Your task to perform on an android device: toggle sleep mode Image 0: 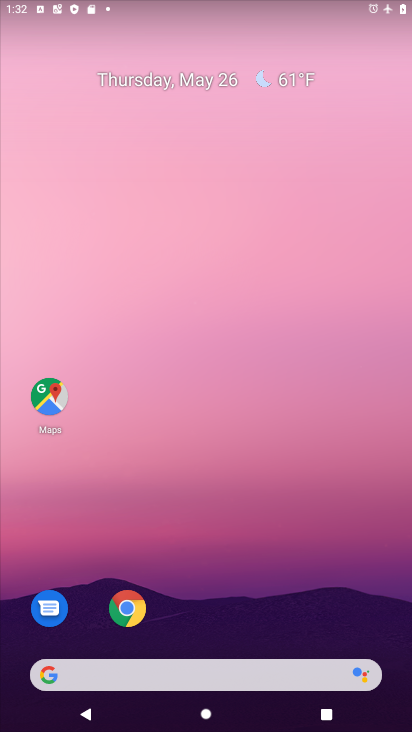
Step 0: drag from (372, 609) to (345, 196)
Your task to perform on an android device: toggle sleep mode Image 1: 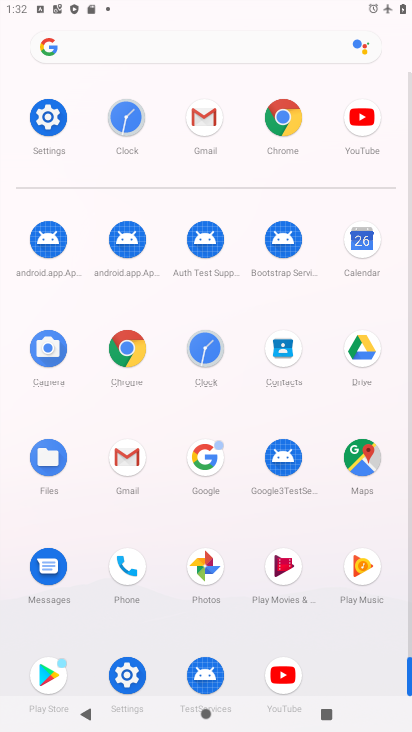
Step 1: click (125, 675)
Your task to perform on an android device: toggle sleep mode Image 2: 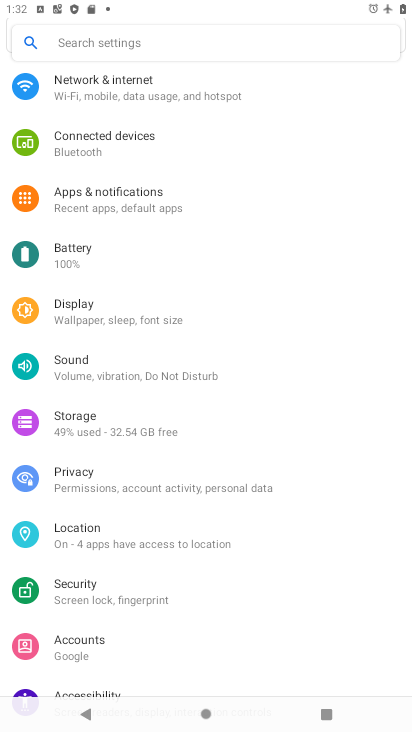
Step 2: click (79, 319)
Your task to perform on an android device: toggle sleep mode Image 3: 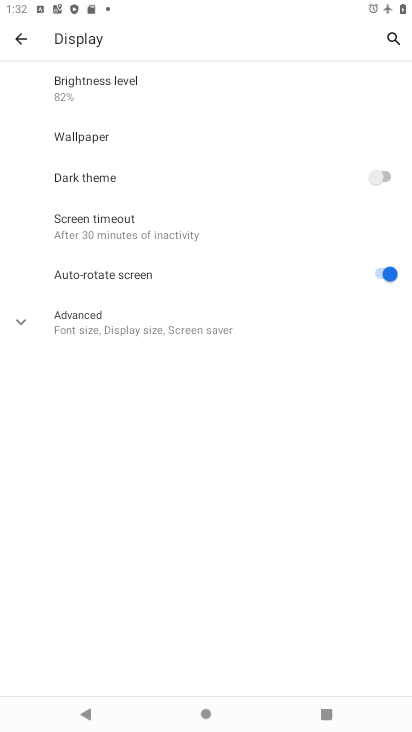
Step 3: click (22, 318)
Your task to perform on an android device: toggle sleep mode Image 4: 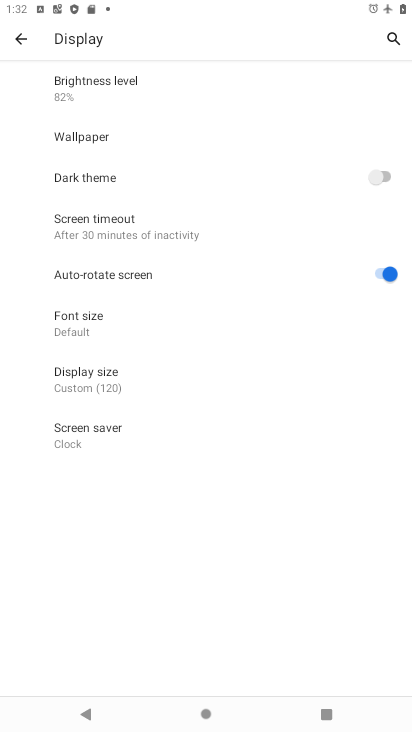
Step 4: task complete